Your task to perform on an android device: turn off translation in the chrome app Image 0: 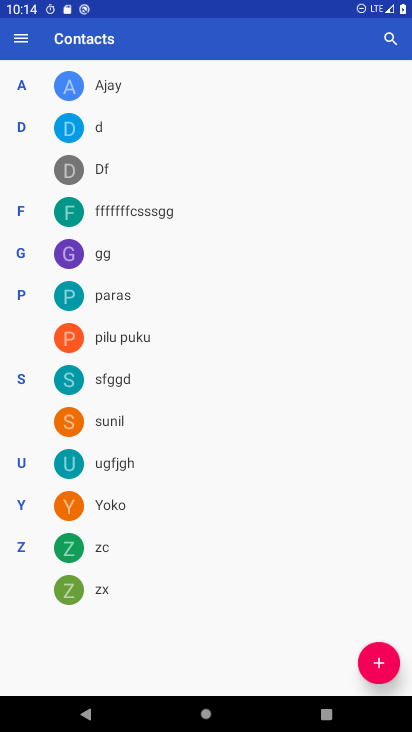
Step 0: press home button
Your task to perform on an android device: turn off translation in the chrome app Image 1: 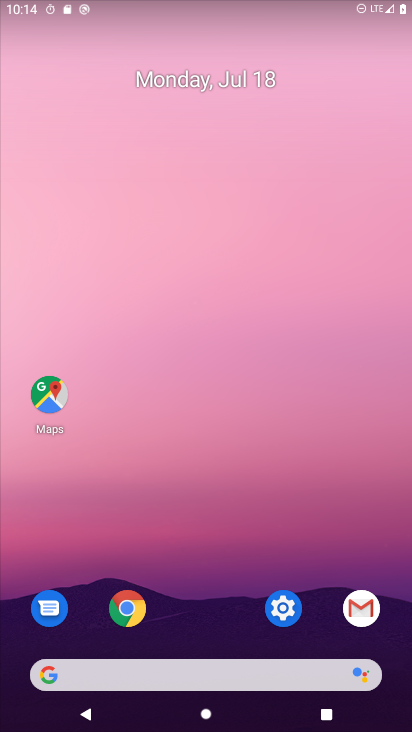
Step 1: click (138, 605)
Your task to perform on an android device: turn off translation in the chrome app Image 2: 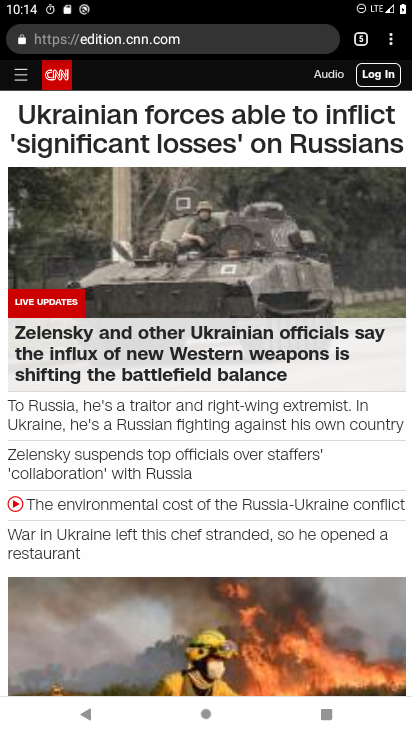
Step 2: click (388, 35)
Your task to perform on an android device: turn off translation in the chrome app Image 3: 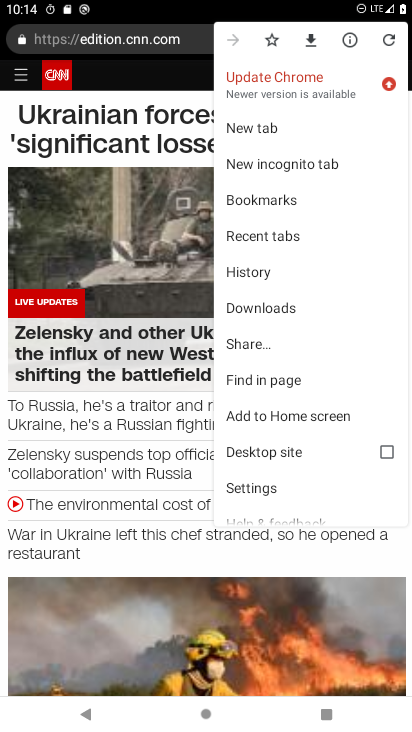
Step 3: click (261, 487)
Your task to perform on an android device: turn off translation in the chrome app Image 4: 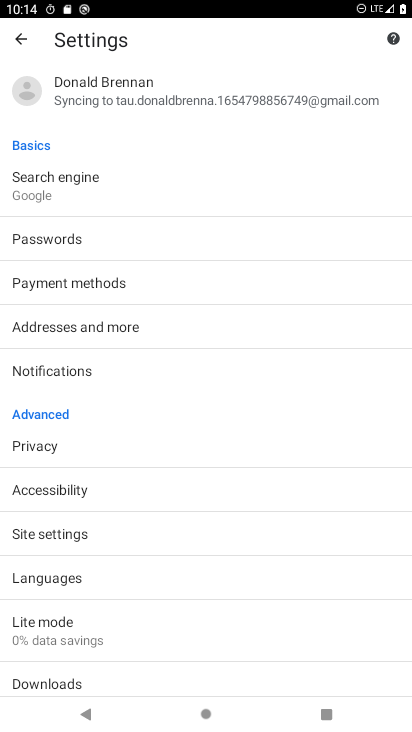
Step 4: click (78, 534)
Your task to perform on an android device: turn off translation in the chrome app Image 5: 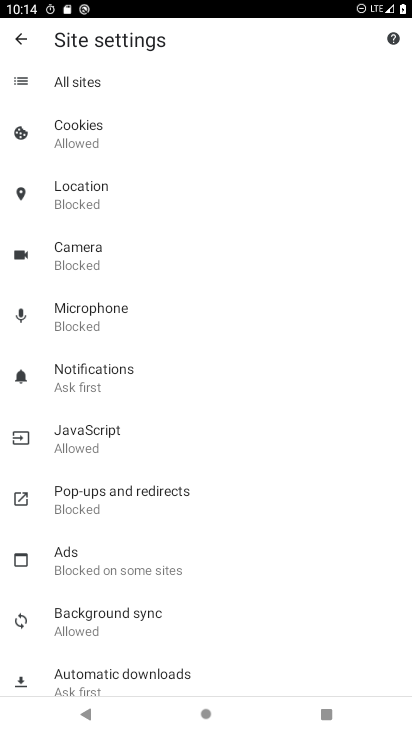
Step 5: click (18, 40)
Your task to perform on an android device: turn off translation in the chrome app Image 6: 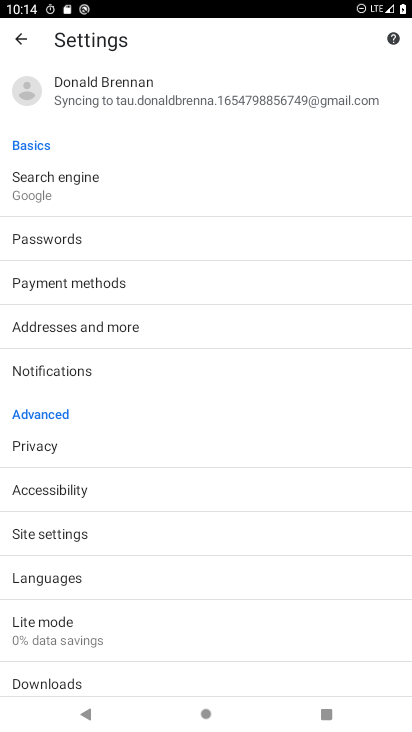
Step 6: click (112, 583)
Your task to perform on an android device: turn off translation in the chrome app Image 7: 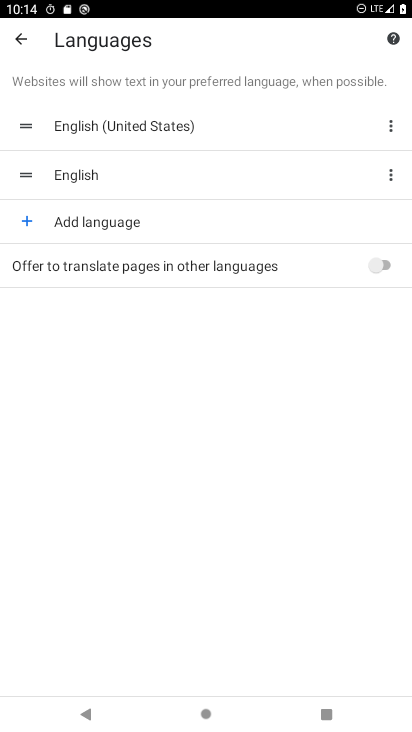
Step 7: click (371, 272)
Your task to perform on an android device: turn off translation in the chrome app Image 8: 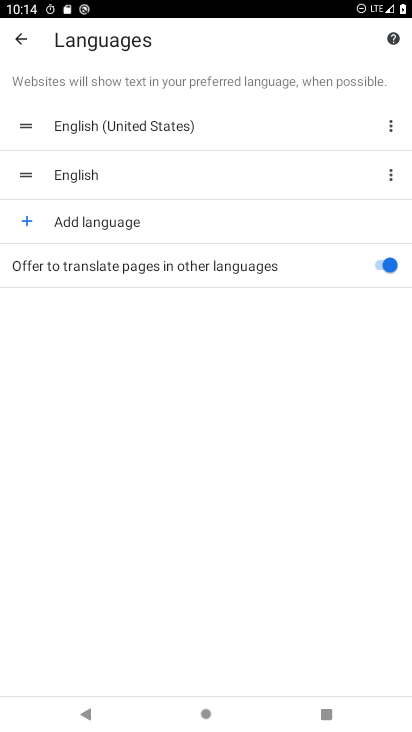
Step 8: click (371, 272)
Your task to perform on an android device: turn off translation in the chrome app Image 9: 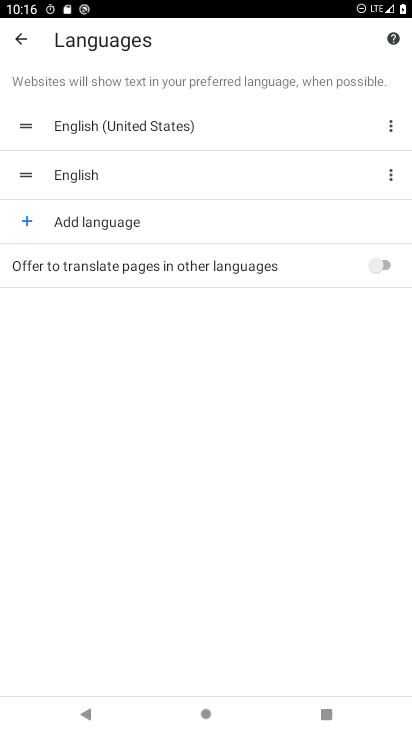
Step 9: task complete